Your task to perform on an android device: Show me popular games on the Play Store Image 0: 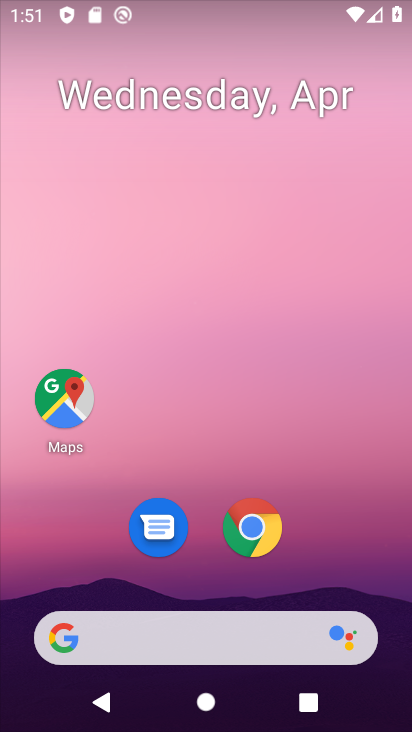
Step 0: drag from (166, 402) to (182, 236)
Your task to perform on an android device: Show me popular games on the Play Store Image 1: 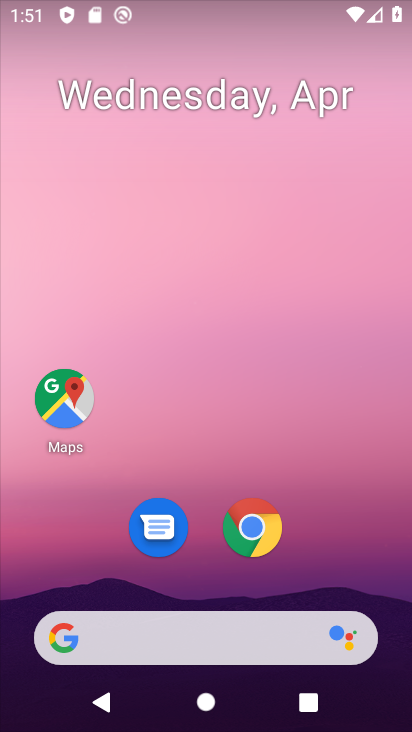
Step 1: drag from (196, 601) to (209, 259)
Your task to perform on an android device: Show me popular games on the Play Store Image 2: 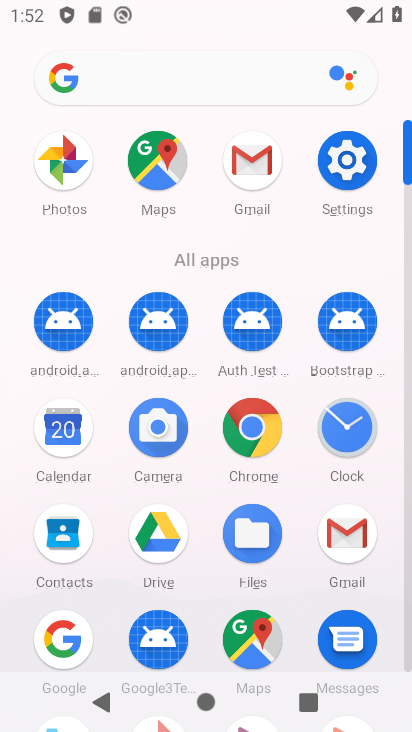
Step 2: drag from (278, 640) to (296, 362)
Your task to perform on an android device: Show me popular games on the Play Store Image 3: 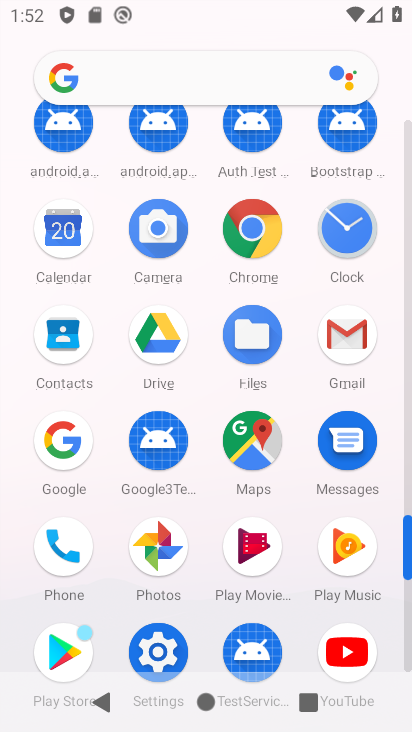
Step 3: click (61, 661)
Your task to perform on an android device: Show me popular games on the Play Store Image 4: 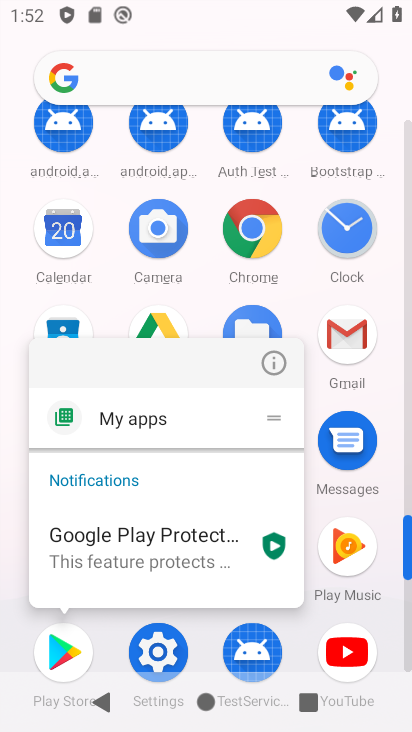
Step 4: click (68, 667)
Your task to perform on an android device: Show me popular games on the Play Store Image 5: 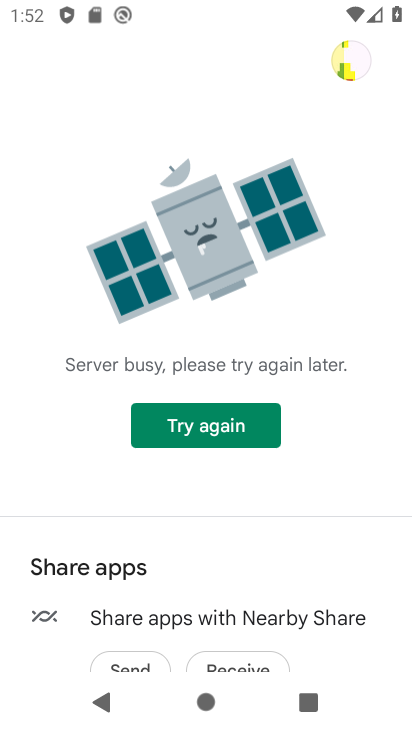
Step 5: task complete